Your task to perform on an android device: Open settings Image 0: 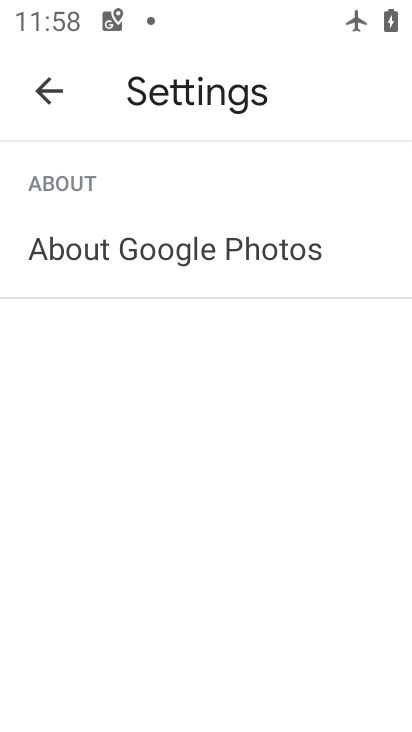
Step 0: press home button
Your task to perform on an android device: Open settings Image 1: 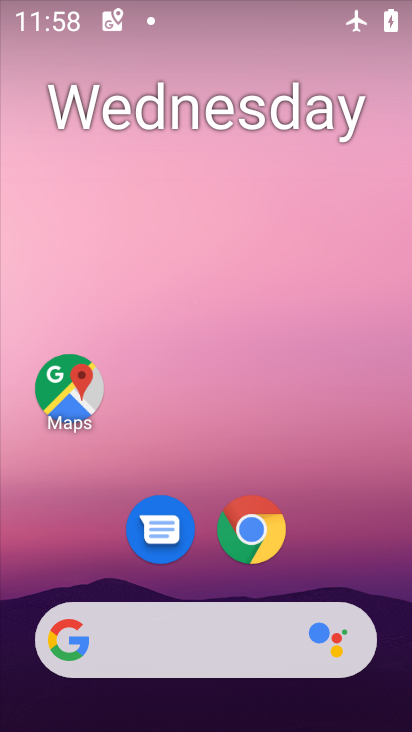
Step 1: drag from (397, 611) to (323, 245)
Your task to perform on an android device: Open settings Image 2: 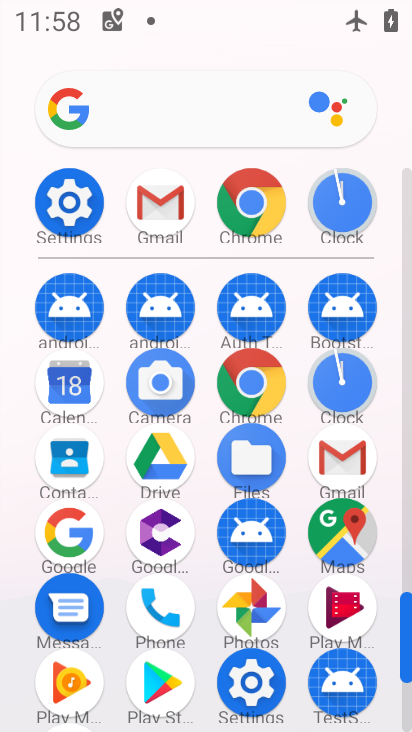
Step 2: click (253, 682)
Your task to perform on an android device: Open settings Image 3: 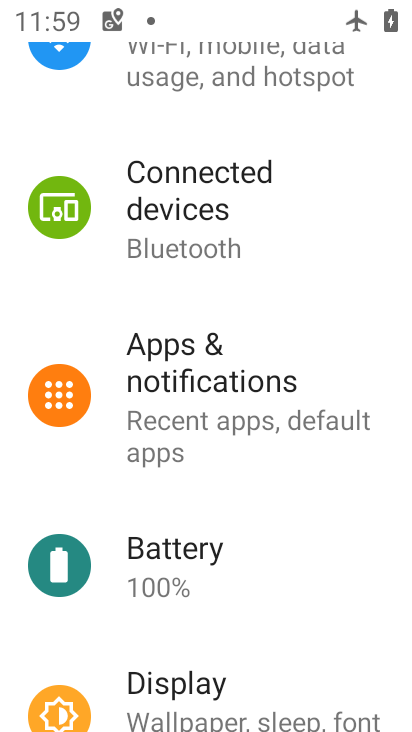
Step 3: task complete